Your task to perform on an android device: open app "Speedtest by Ookla" (install if not already installed) and go to login screen Image 0: 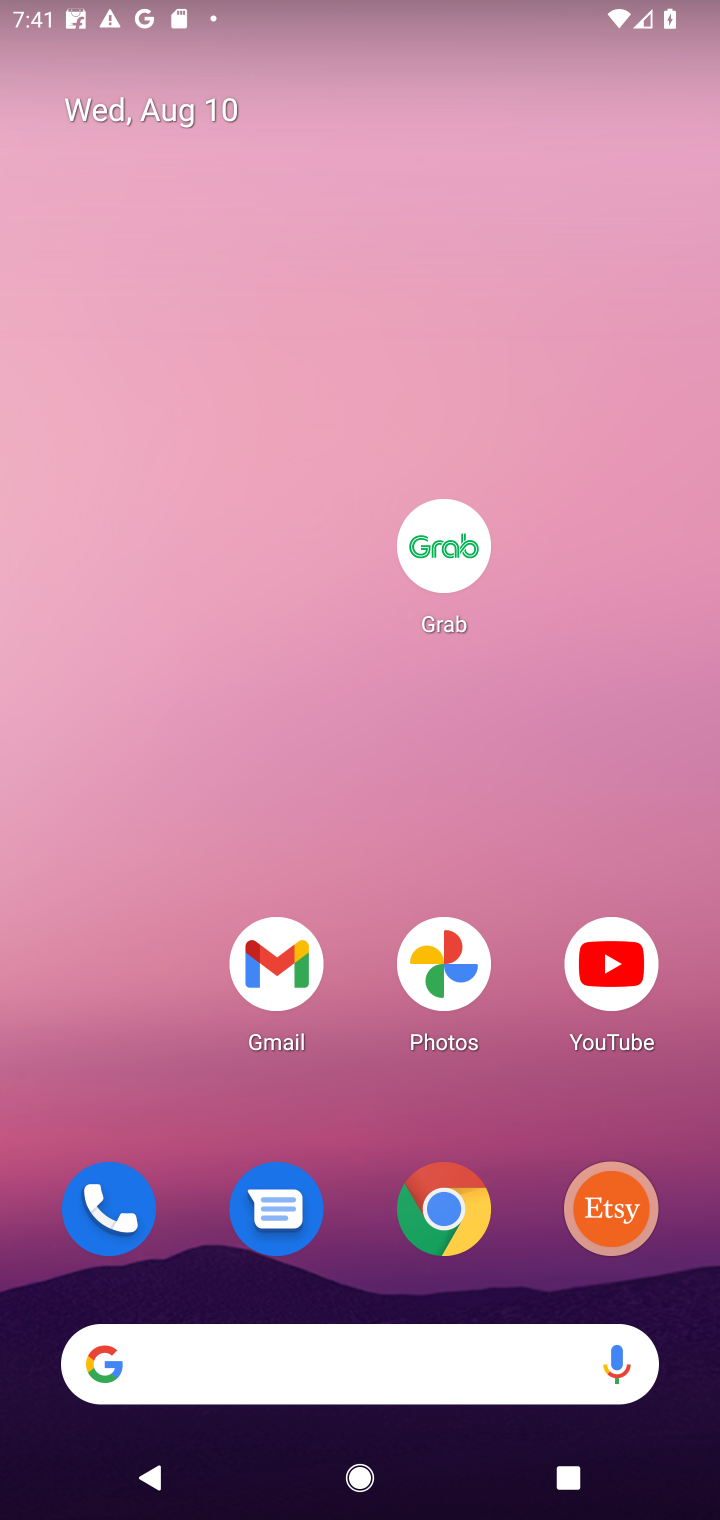
Step 0: drag from (372, 1261) to (394, 25)
Your task to perform on an android device: open app "Speedtest by Ookla" (install if not already installed) and go to login screen Image 1: 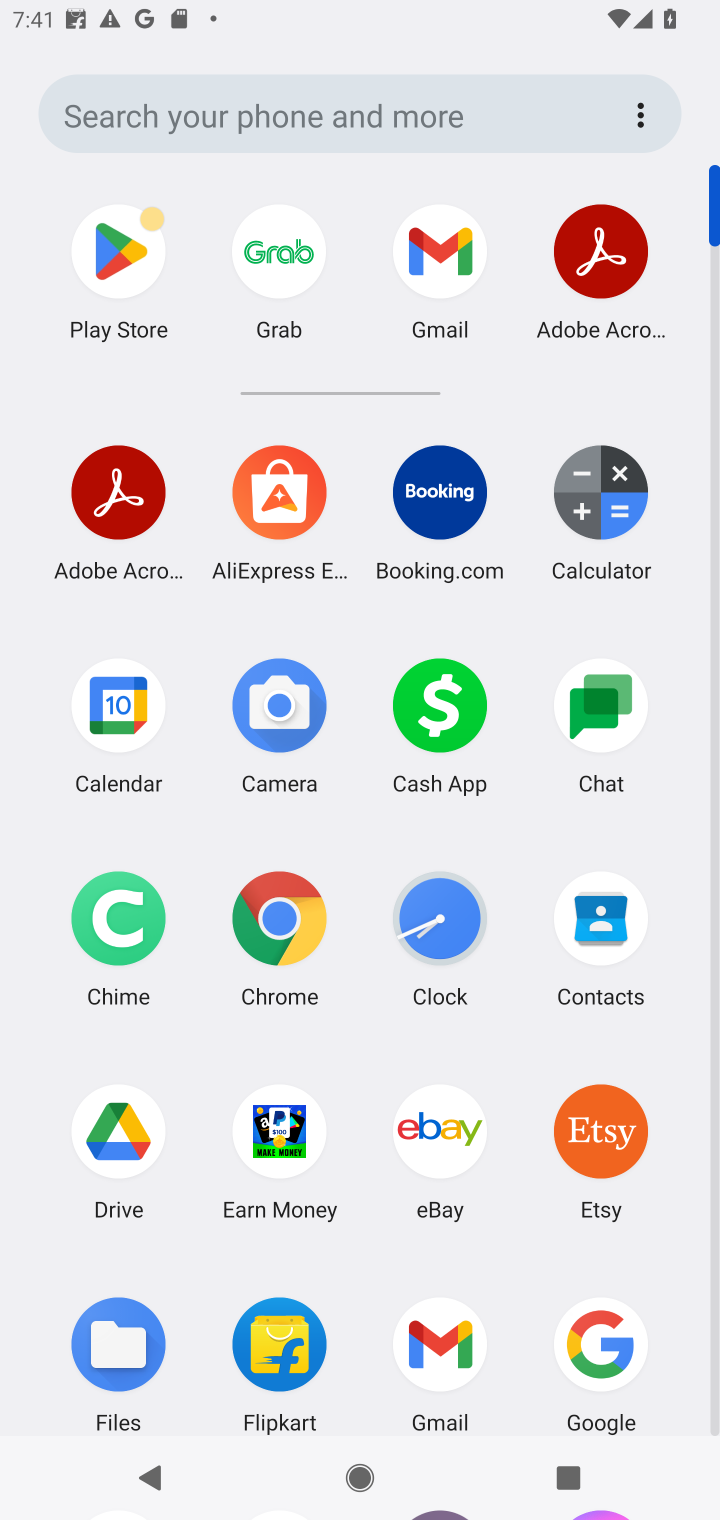
Step 1: click (148, 278)
Your task to perform on an android device: open app "Speedtest by Ookla" (install if not already installed) and go to login screen Image 2: 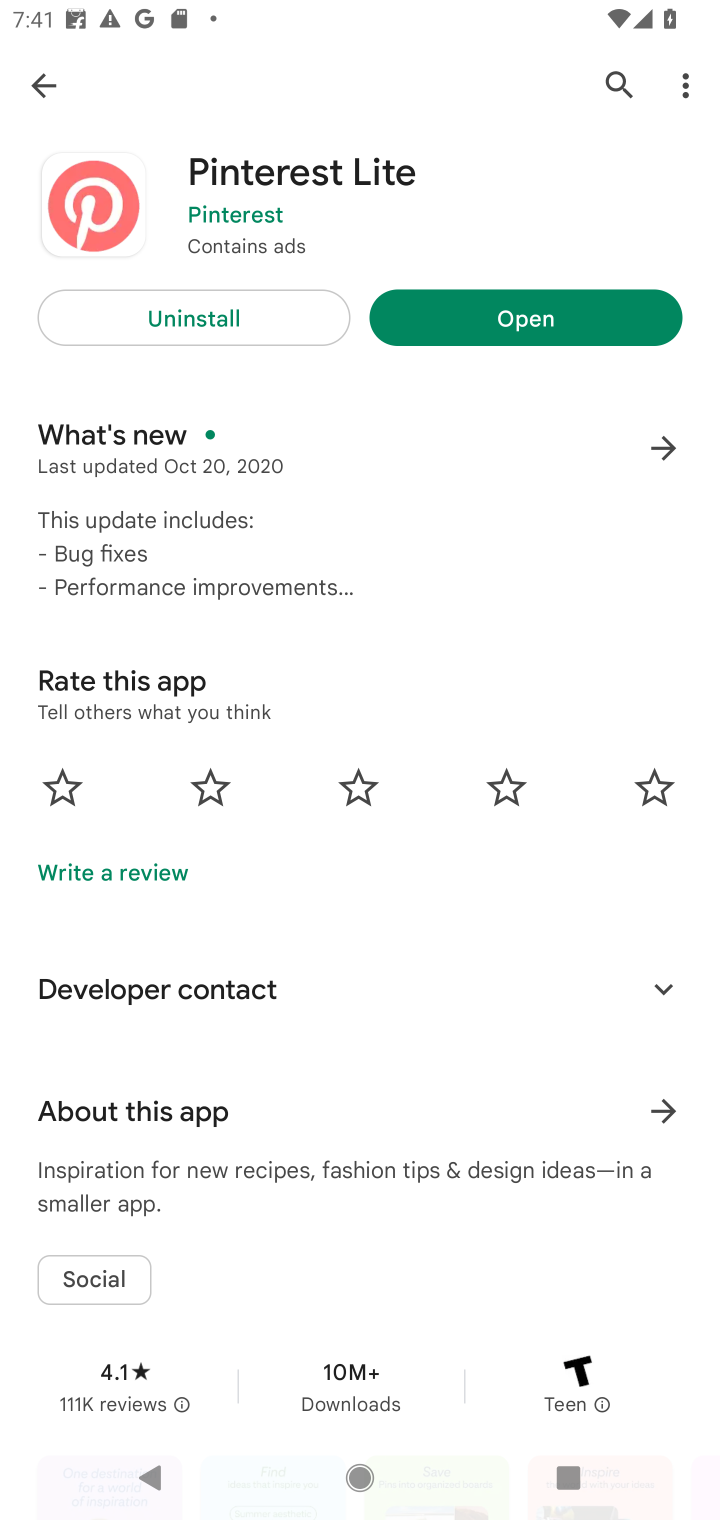
Step 2: click (626, 80)
Your task to perform on an android device: open app "Speedtest by Ookla" (install if not already installed) and go to login screen Image 3: 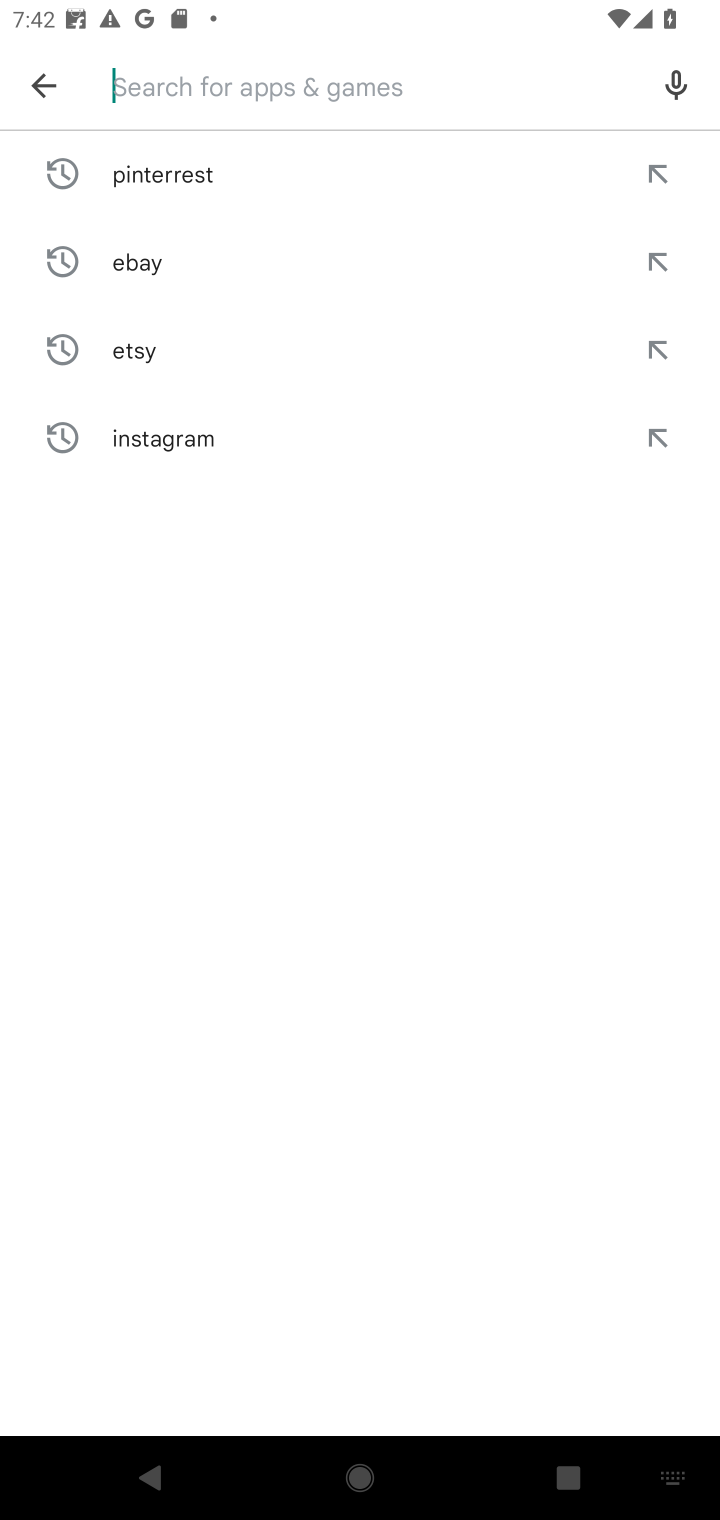
Step 3: click (675, 80)
Your task to perform on an android device: open app "Speedtest by Ookla" (install if not already installed) and go to login screen Image 4: 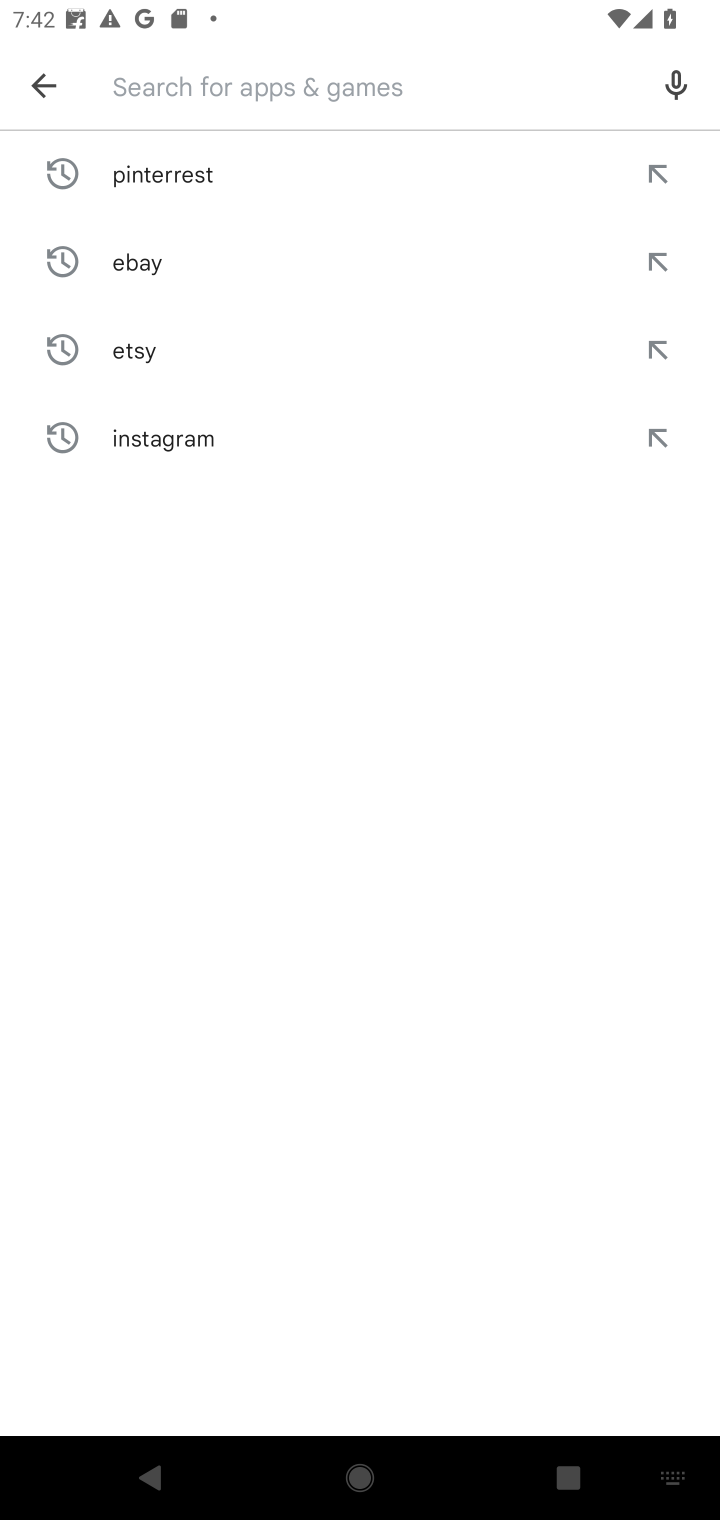
Step 4: click (513, 89)
Your task to perform on an android device: open app "Speedtest by Ookla" (install if not already installed) and go to login screen Image 5: 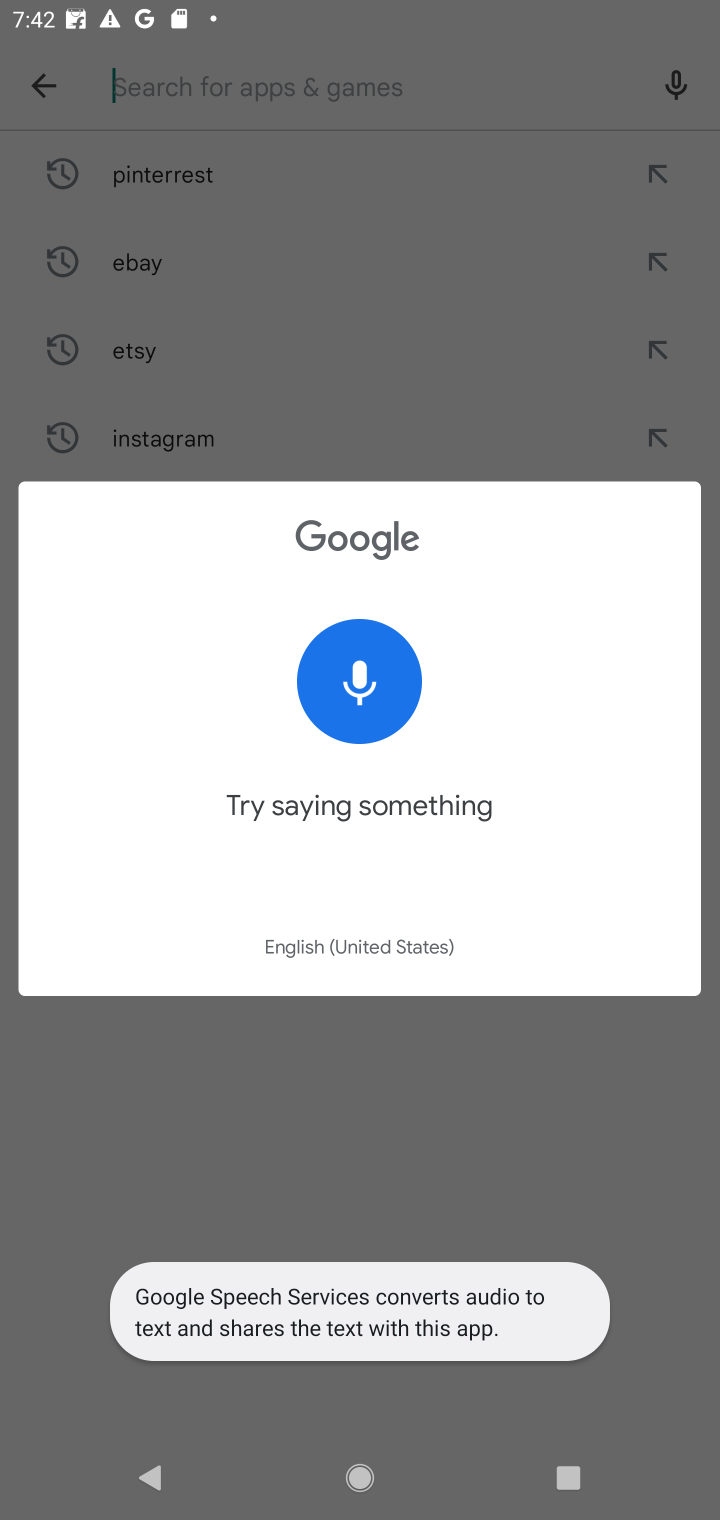
Step 5: click (513, 89)
Your task to perform on an android device: open app "Speedtest by Ookla" (install if not already installed) and go to login screen Image 6: 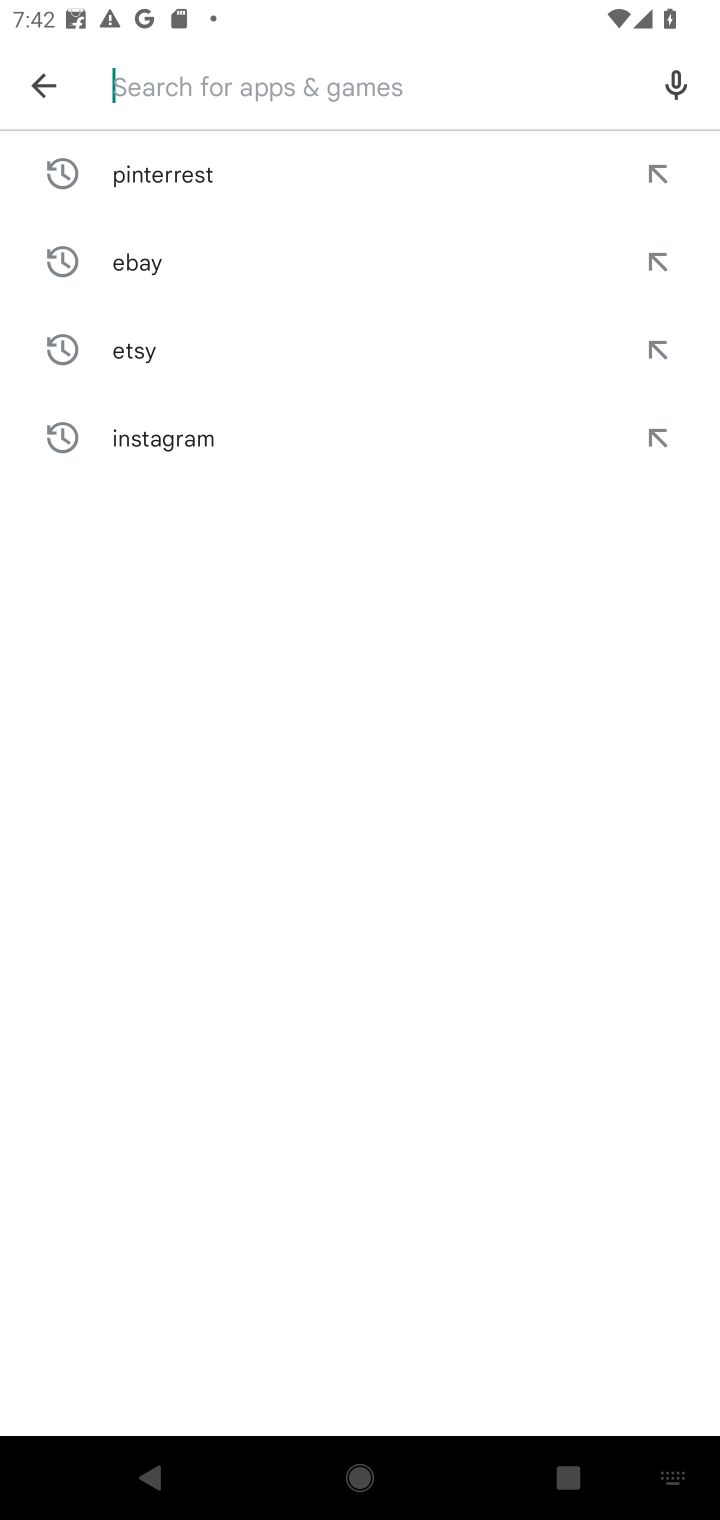
Step 6: type "speed ookla"
Your task to perform on an android device: open app "Speedtest by Ookla" (install if not already installed) and go to login screen Image 7: 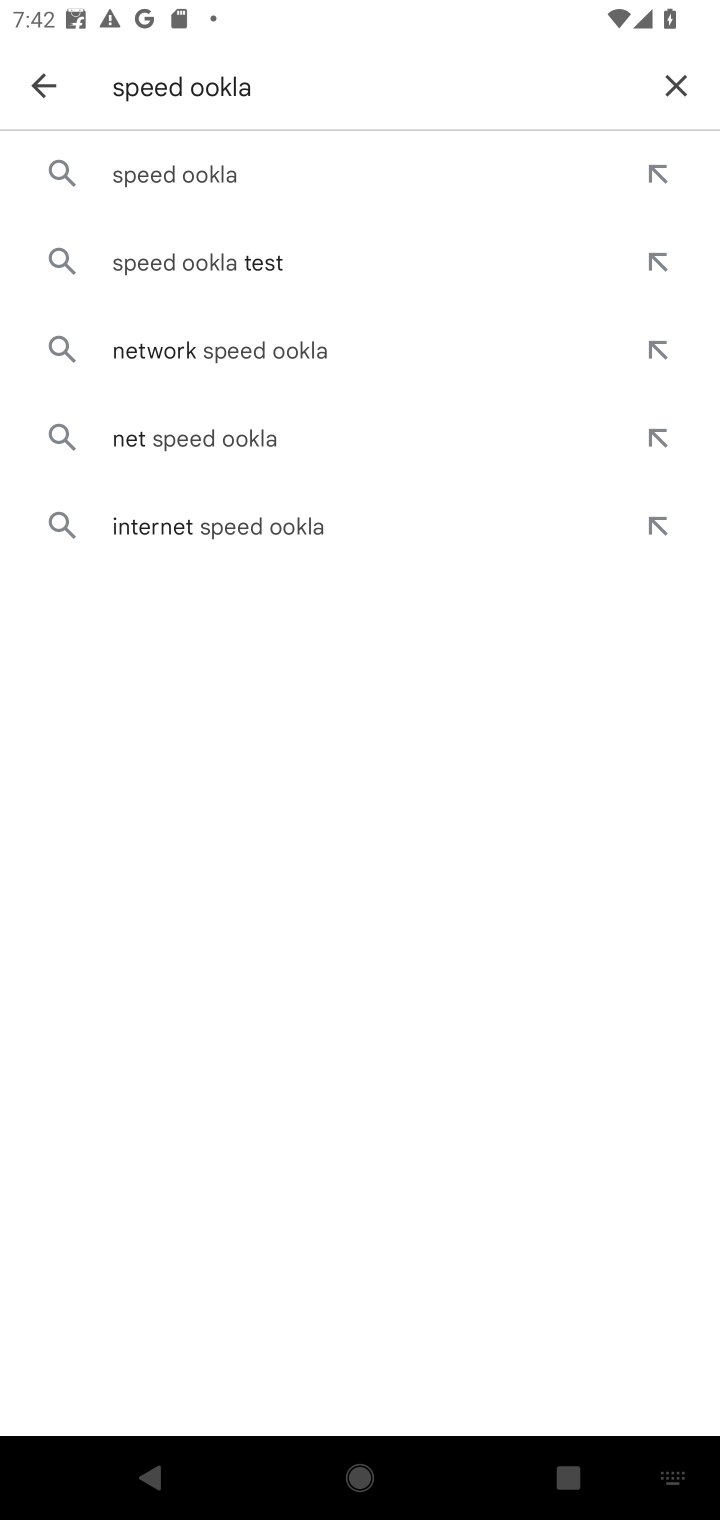
Step 7: click (191, 187)
Your task to perform on an android device: open app "Speedtest by Ookla" (install if not already installed) and go to login screen Image 8: 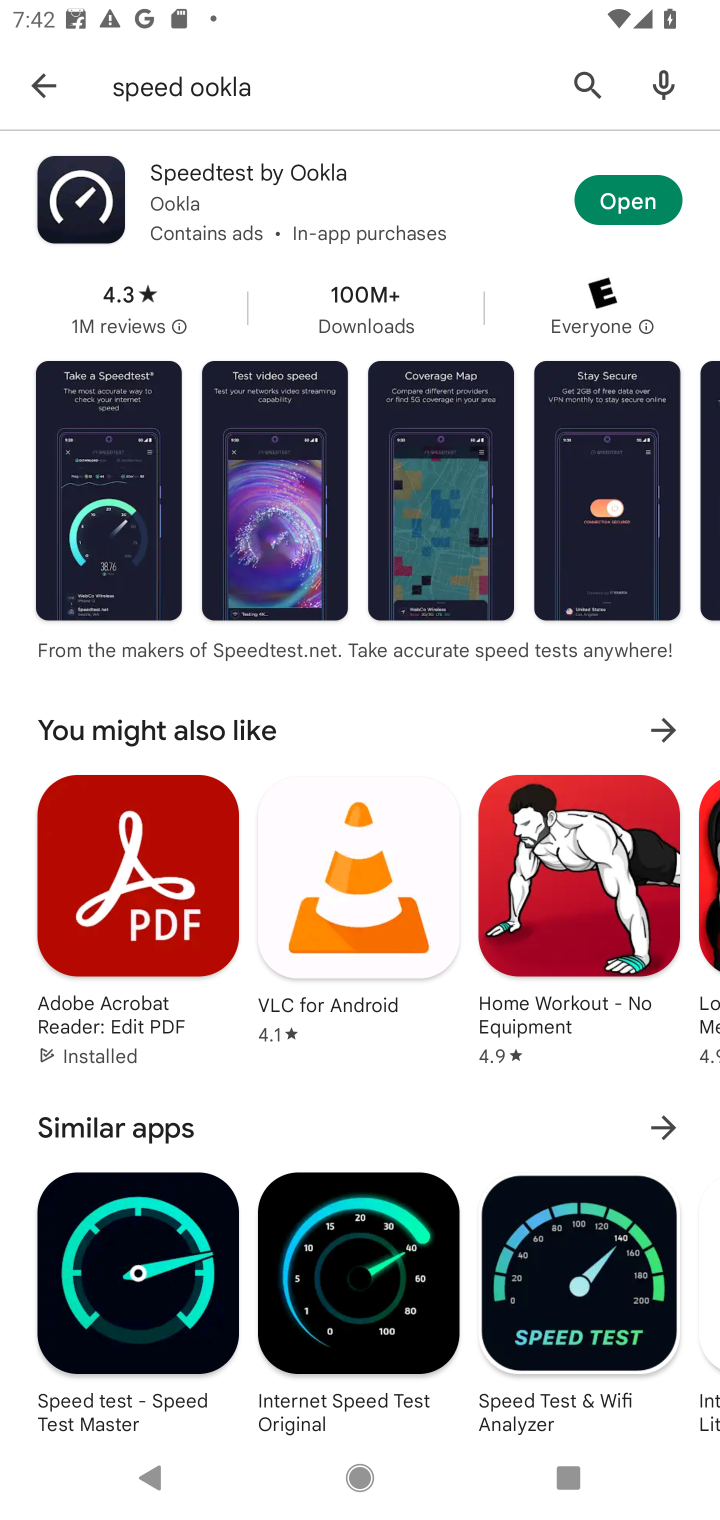
Step 8: click (640, 186)
Your task to perform on an android device: open app "Speedtest by Ookla" (install if not already installed) and go to login screen Image 9: 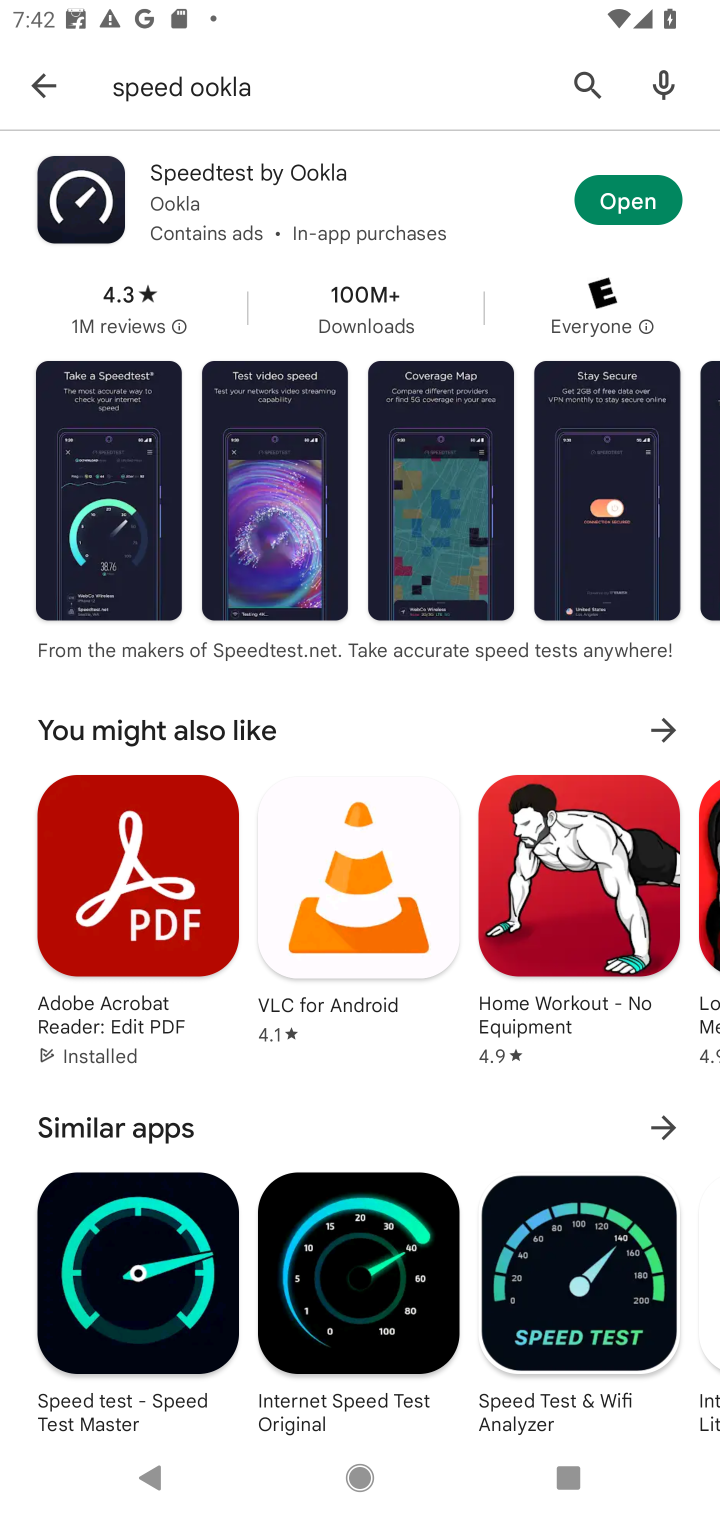
Step 9: task complete